Your task to perform on an android device: choose inbox layout in the gmail app Image 0: 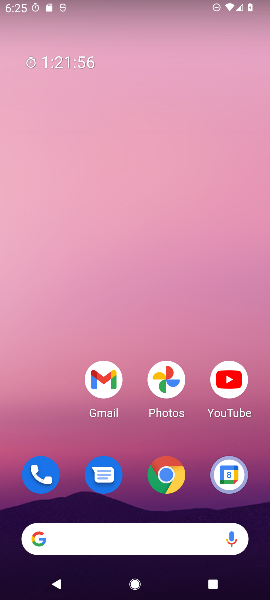
Step 0: press home button
Your task to perform on an android device: choose inbox layout in the gmail app Image 1: 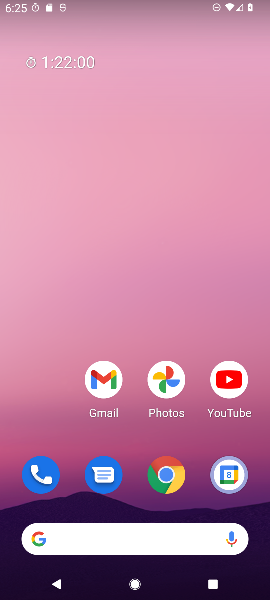
Step 1: drag from (71, 440) to (61, 163)
Your task to perform on an android device: choose inbox layout in the gmail app Image 2: 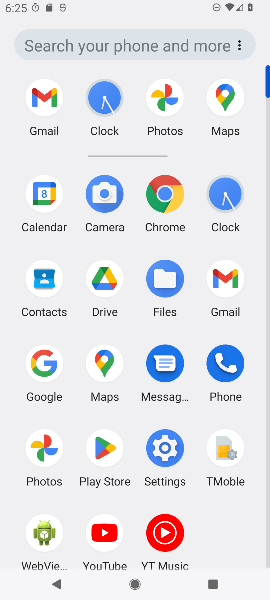
Step 2: click (225, 280)
Your task to perform on an android device: choose inbox layout in the gmail app Image 3: 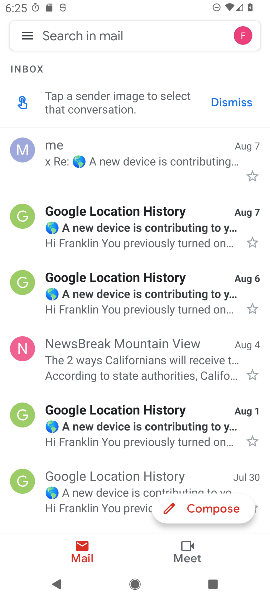
Step 3: click (28, 36)
Your task to perform on an android device: choose inbox layout in the gmail app Image 4: 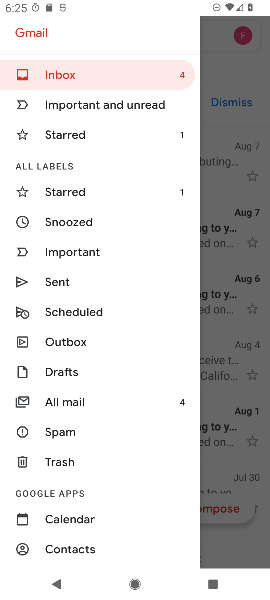
Step 4: drag from (130, 424) to (131, 294)
Your task to perform on an android device: choose inbox layout in the gmail app Image 5: 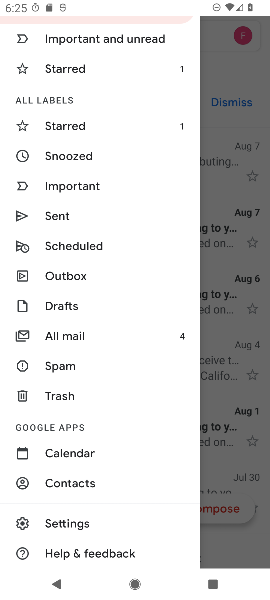
Step 5: click (107, 526)
Your task to perform on an android device: choose inbox layout in the gmail app Image 6: 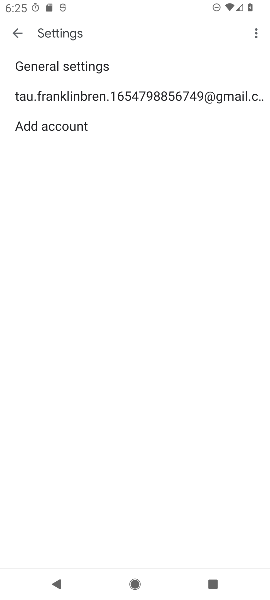
Step 6: click (180, 96)
Your task to perform on an android device: choose inbox layout in the gmail app Image 7: 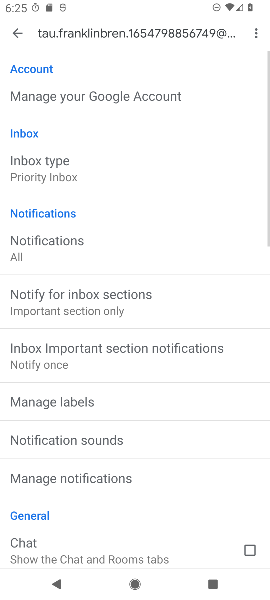
Step 7: drag from (184, 281) to (186, 192)
Your task to perform on an android device: choose inbox layout in the gmail app Image 8: 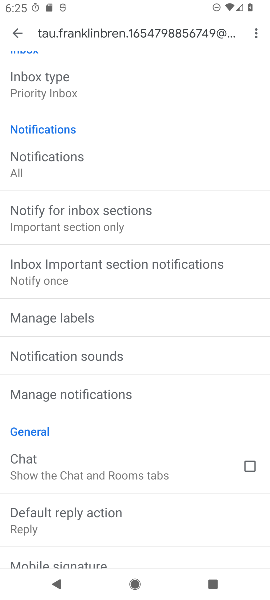
Step 8: click (105, 84)
Your task to perform on an android device: choose inbox layout in the gmail app Image 9: 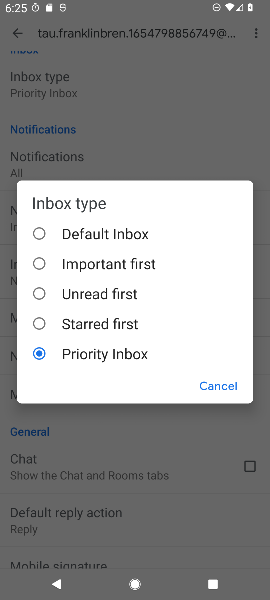
Step 9: click (121, 264)
Your task to perform on an android device: choose inbox layout in the gmail app Image 10: 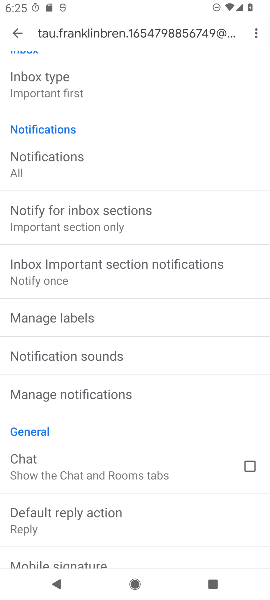
Step 10: task complete